Your task to perform on an android device: change your default location settings in chrome Image 0: 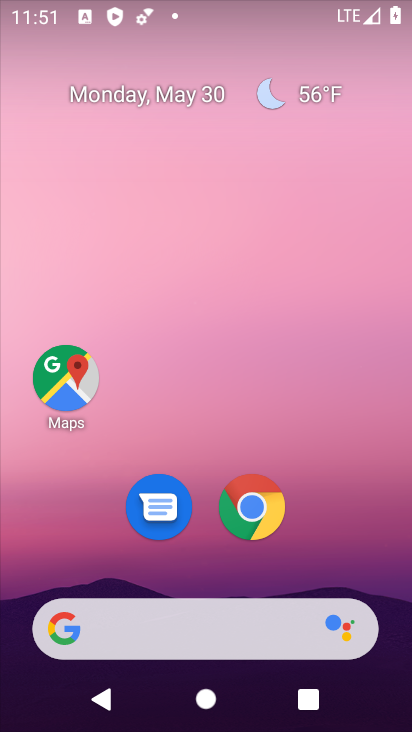
Step 0: drag from (386, 633) to (243, 52)
Your task to perform on an android device: change your default location settings in chrome Image 1: 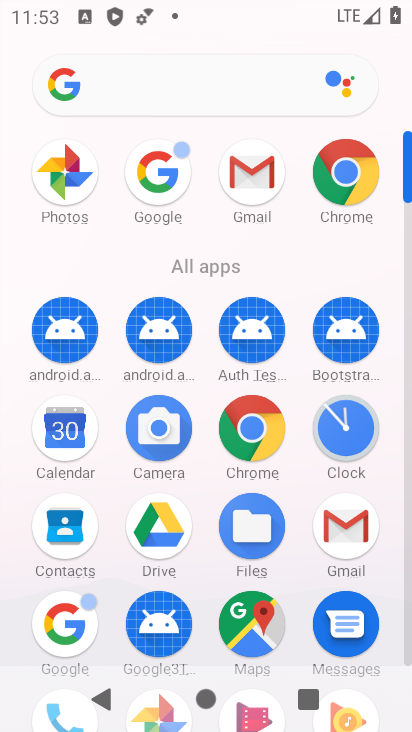
Step 1: click (249, 447)
Your task to perform on an android device: change your default location settings in chrome Image 2: 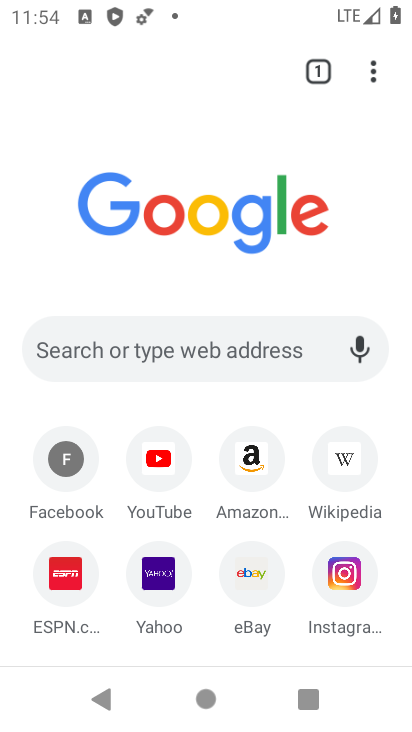
Step 2: click (371, 69)
Your task to perform on an android device: change your default location settings in chrome Image 3: 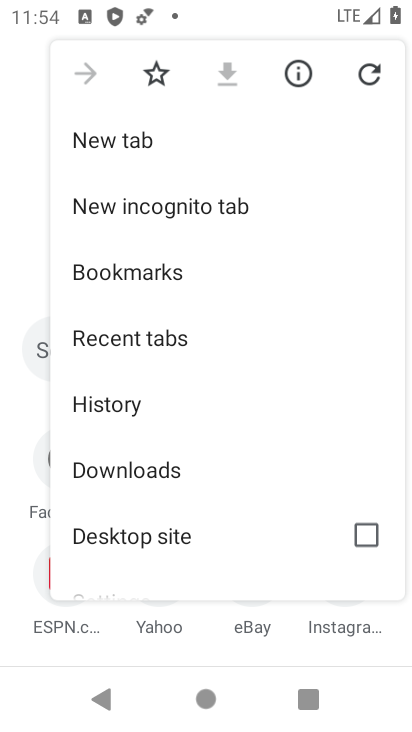
Step 3: drag from (210, 520) to (264, 110)
Your task to perform on an android device: change your default location settings in chrome Image 4: 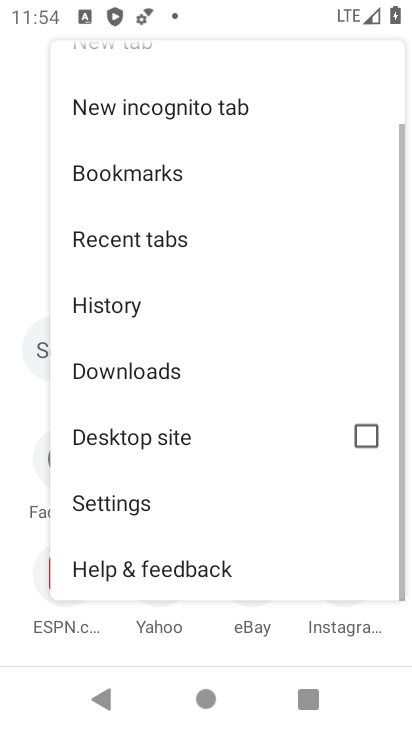
Step 4: click (163, 492)
Your task to perform on an android device: change your default location settings in chrome Image 5: 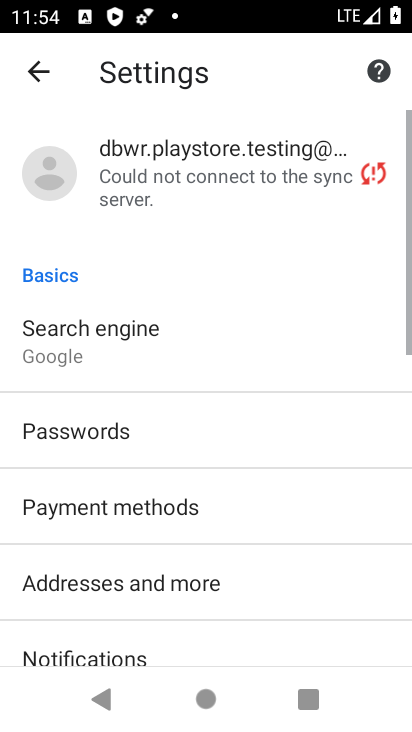
Step 5: click (108, 349)
Your task to perform on an android device: change your default location settings in chrome Image 6: 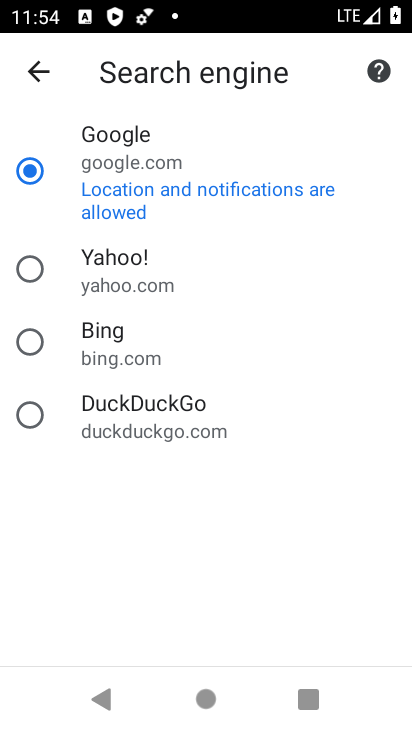
Step 6: click (78, 329)
Your task to perform on an android device: change your default location settings in chrome Image 7: 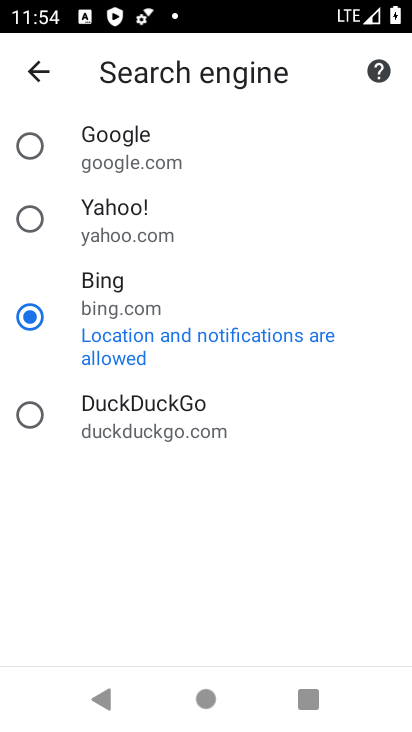
Step 7: task complete